Your task to perform on an android device: show emergency info Image 0: 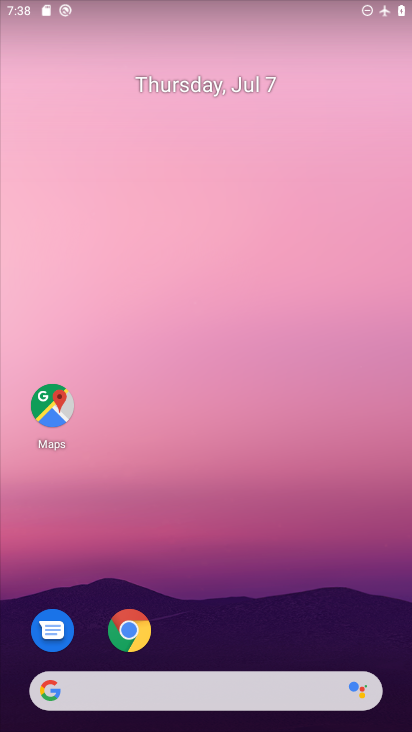
Step 0: drag from (226, 547) to (154, 126)
Your task to perform on an android device: show emergency info Image 1: 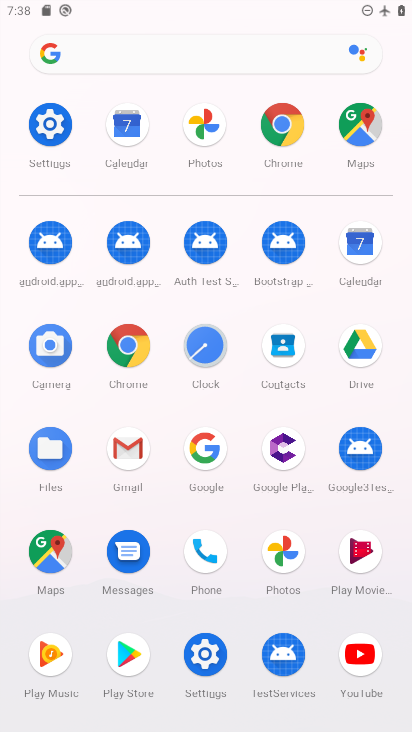
Step 1: click (50, 123)
Your task to perform on an android device: show emergency info Image 2: 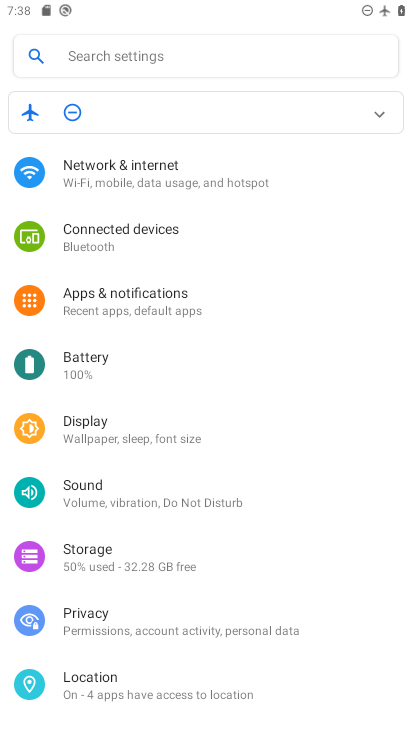
Step 2: drag from (259, 557) to (287, 45)
Your task to perform on an android device: show emergency info Image 3: 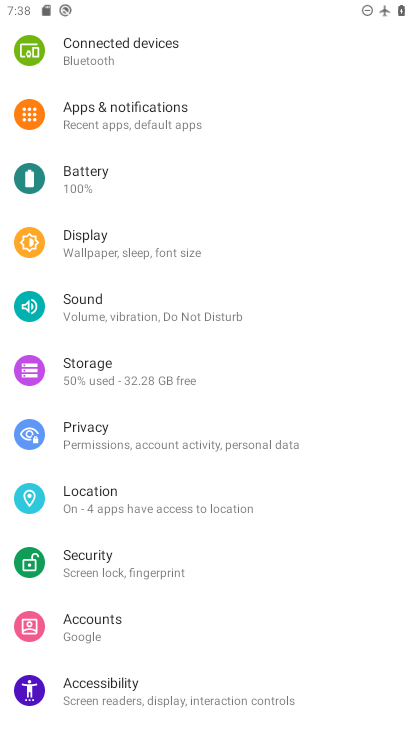
Step 3: drag from (272, 632) to (250, 303)
Your task to perform on an android device: show emergency info Image 4: 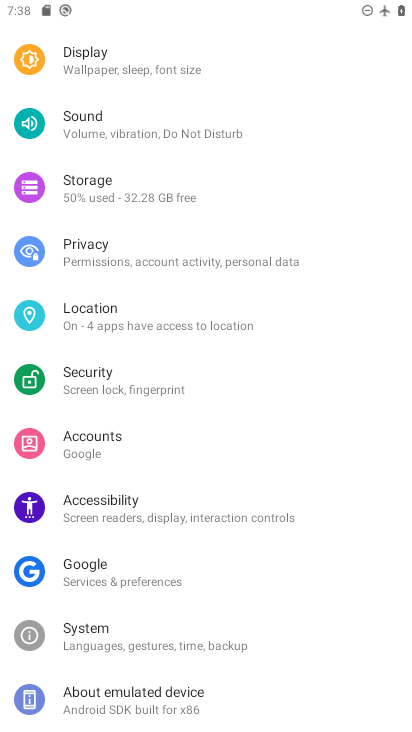
Step 4: click (146, 700)
Your task to perform on an android device: show emergency info Image 5: 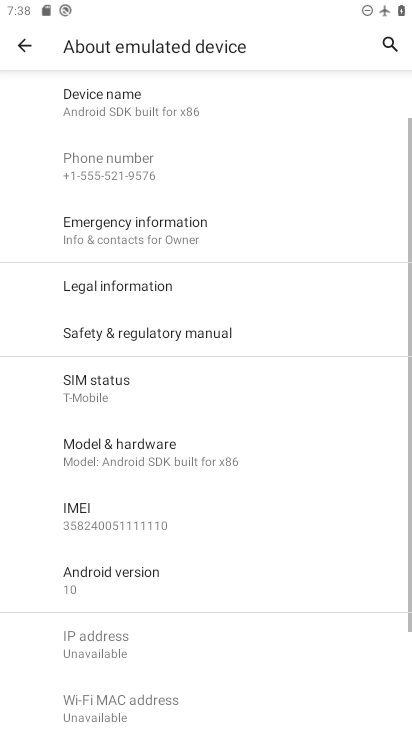
Step 5: click (140, 214)
Your task to perform on an android device: show emergency info Image 6: 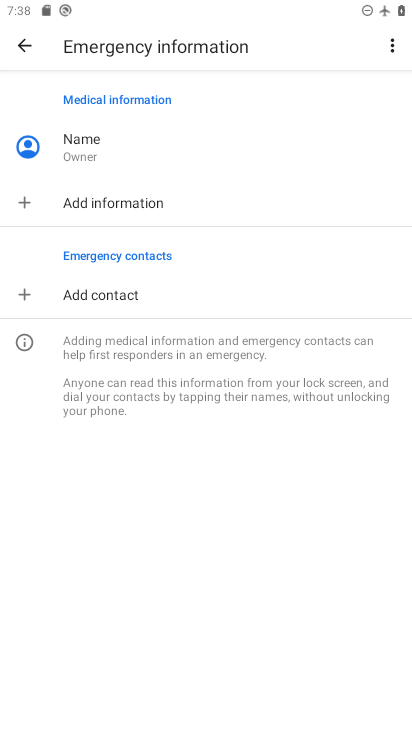
Step 6: task complete